Your task to perform on an android device: allow cookies in the chrome app Image 0: 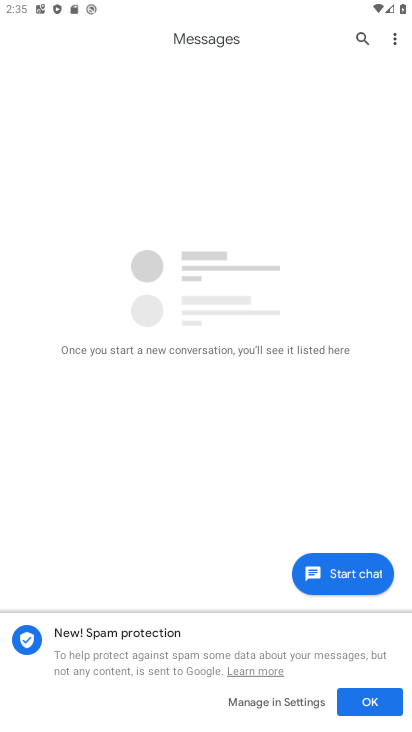
Step 0: press home button
Your task to perform on an android device: allow cookies in the chrome app Image 1: 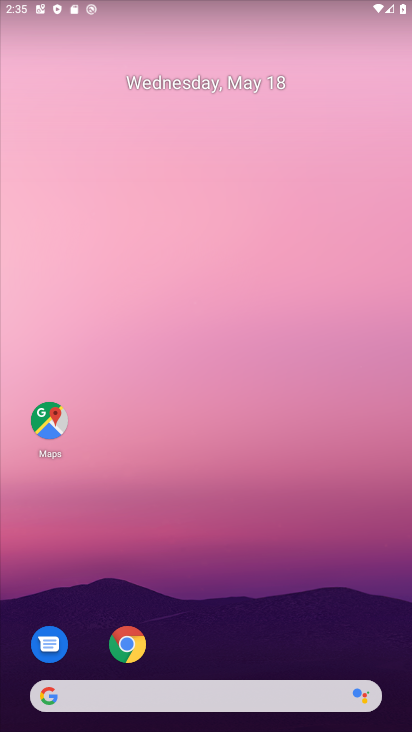
Step 1: click (125, 626)
Your task to perform on an android device: allow cookies in the chrome app Image 2: 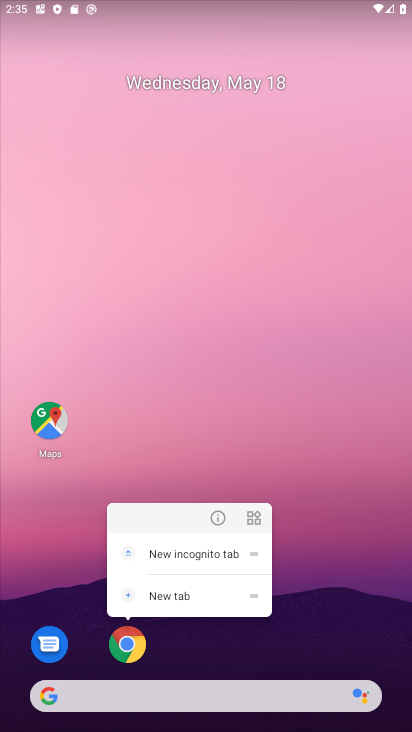
Step 2: click (125, 626)
Your task to perform on an android device: allow cookies in the chrome app Image 3: 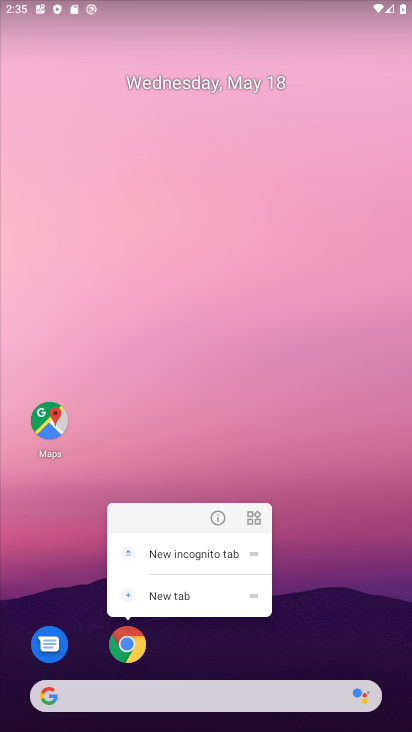
Step 3: click (125, 626)
Your task to perform on an android device: allow cookies in the chrome app Image 4: 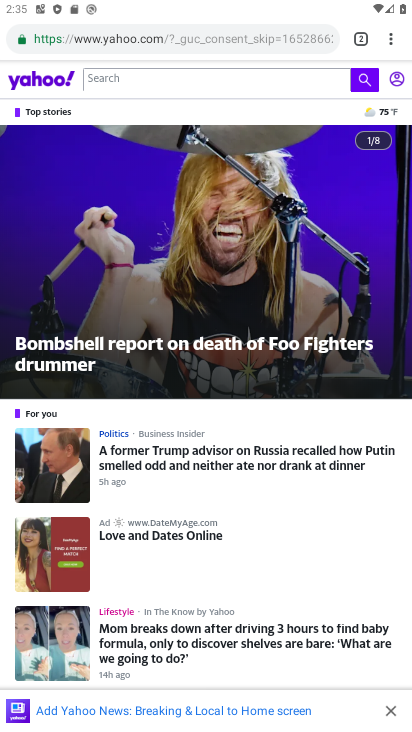
Step 4: click (392, 42)
Your task to perform on an android device: allow cookies in the chrome app Image 5: 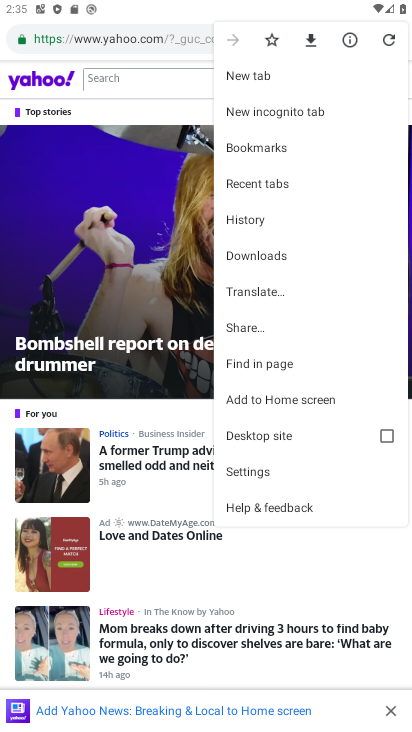
Step 5: click (278, 475)
Your task to perform on an android device: allow cookies in the chrome app Image 6: 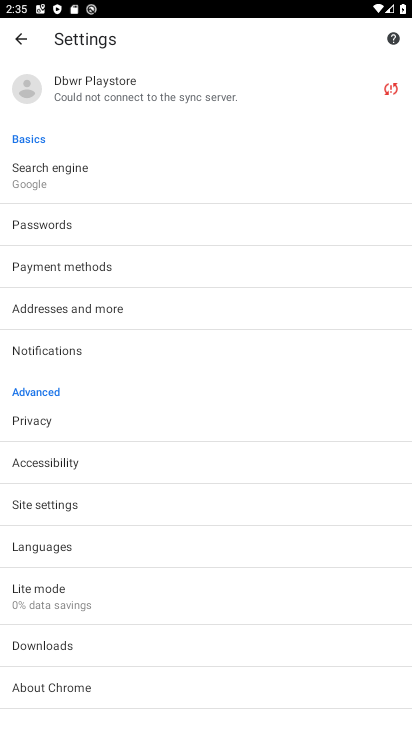
Step 6: click (81, 509)
Your task to perform on an android device: allow cookies in the chrome app Image 7: 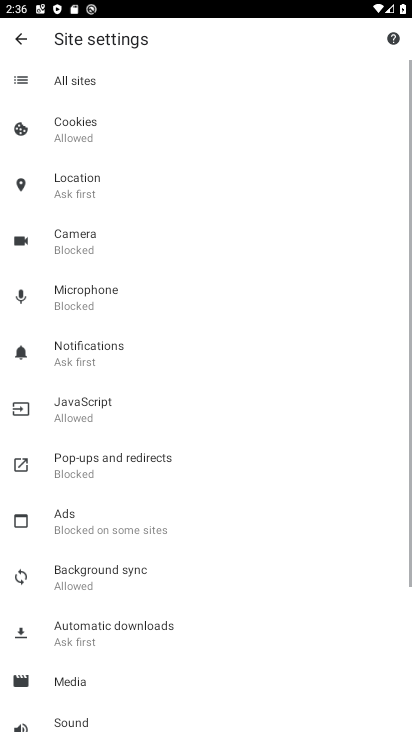
Step 7: click (111, 139)
Your task to perform on an android device: allow cookies in the chrome app Image 8: 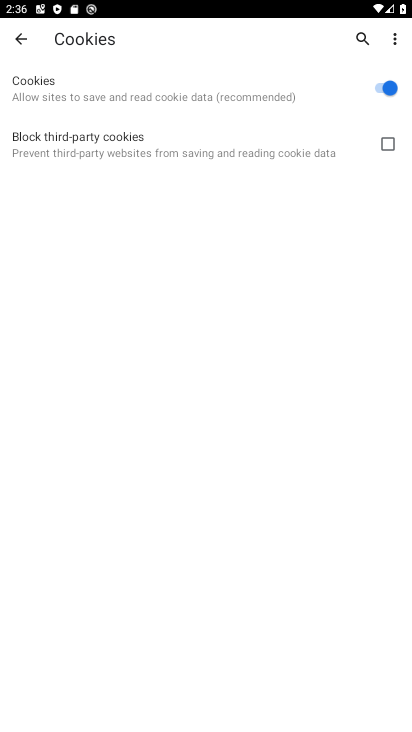
Step 8: task complete